Your task to perform on an android device: Search for a new nail polish Image 0: 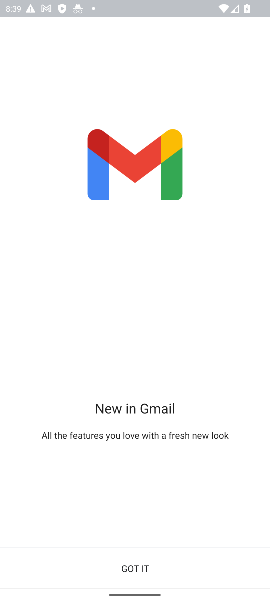
Step 0: press home button
Your task to perform on an android device: Search for a new nail polish Image 1: 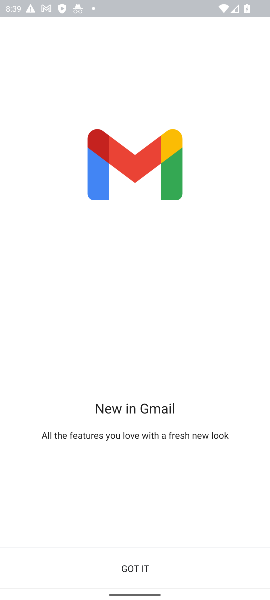
Step 1: press home button
Your task to perform on an android device: Search for a new nail polish Image 2: 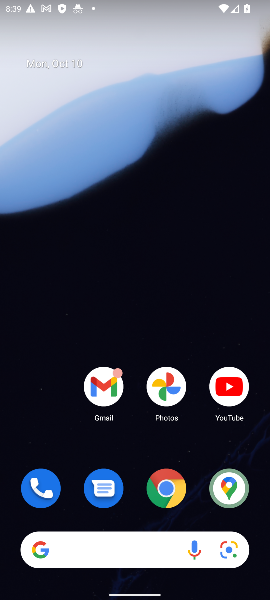
Step 2: drag from (139, 451) to (163, 0)
Your task to perform on an android device: Search for a new nail polish Image 3: 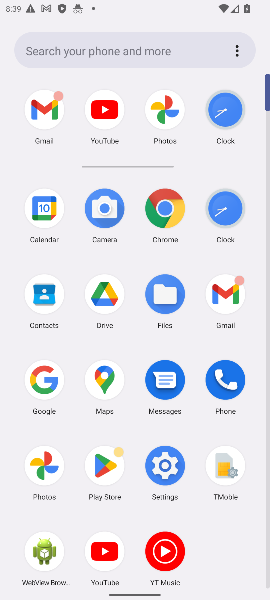
Step 3: click (157, 209)
Your task to perform on an android device: Search for a new nail polish Image 4: 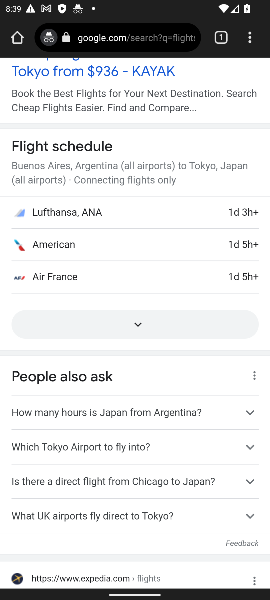
Step 4: click (164, 35)
Your task to perform on an android device: Search for a new nail polish Image 5: 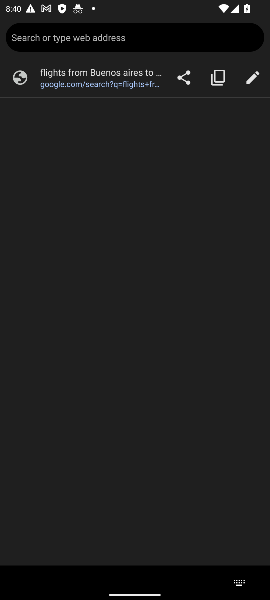
Step 5: type "a new nail polish"
Your task to perform on an android device: Search for a new nail polish Image 6: 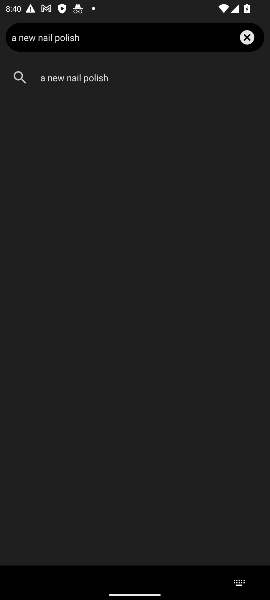
Step 6: press enter
Your task to perform on an android device: Search for a new nail polish Image 7: 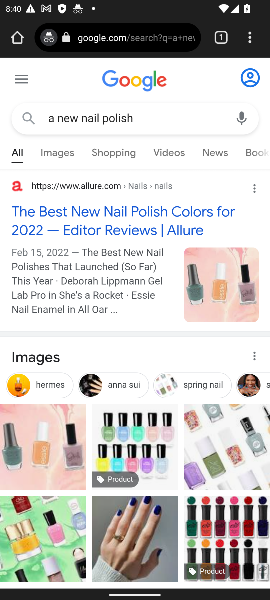
Step 7: drag from (135, 362) to (135, 2)
Your task to perform on an android device: Search for a new nail polish Image 8: 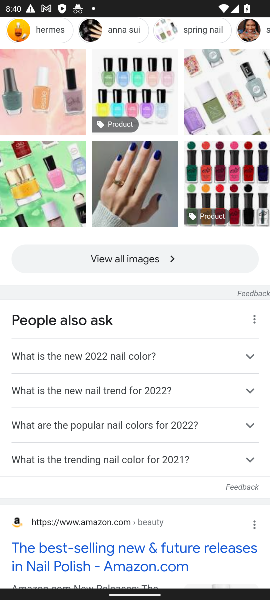
Step 8: drag from (135, 198) to (136, 559)
Your task to perform on an android device: Search for a new nail polish Image 9: 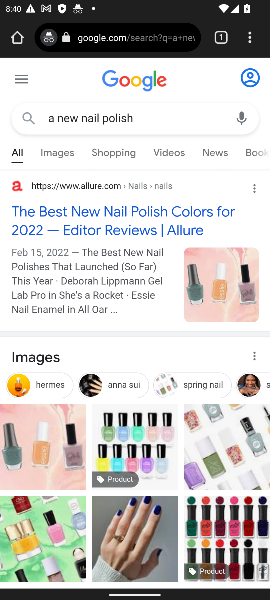
Step 9: click (107, 228)
Your task to perform on an android device: Search for a new nail polish Image 10: 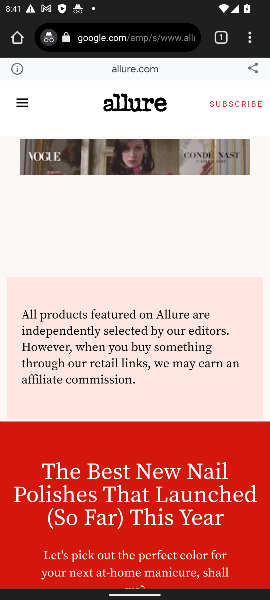
Step 10: task complete